Your task to perform on an android device: turn pop-ups on in chrome Image 0: 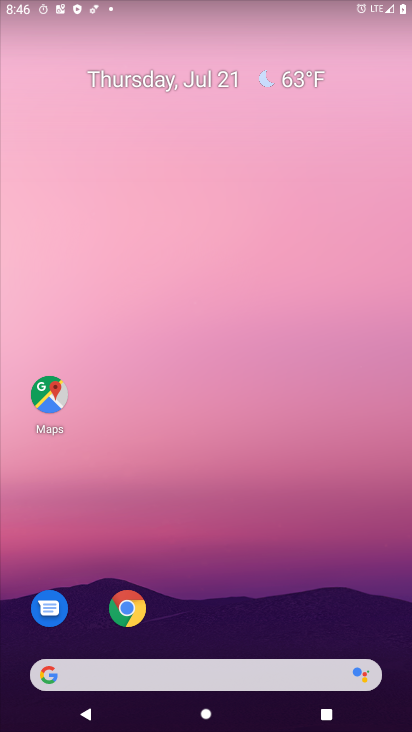
Step 0: press home button
Your task to perform on an android device: turn pop-ups on in chrome Image 1: 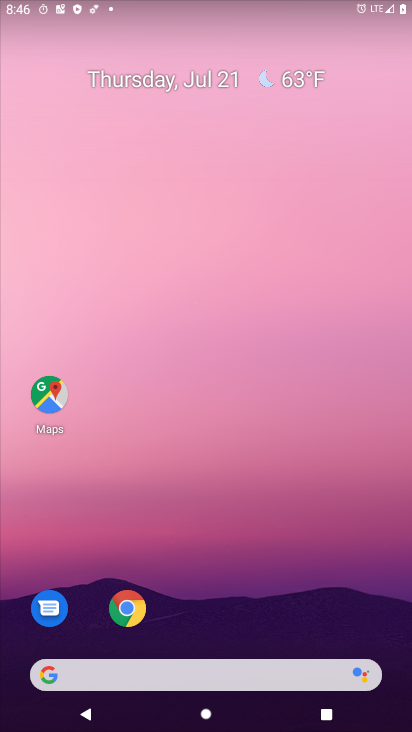
Step 1: click (190, 629)
Your task to perform on an android device: turn pop-ups on in chrome Image 2: 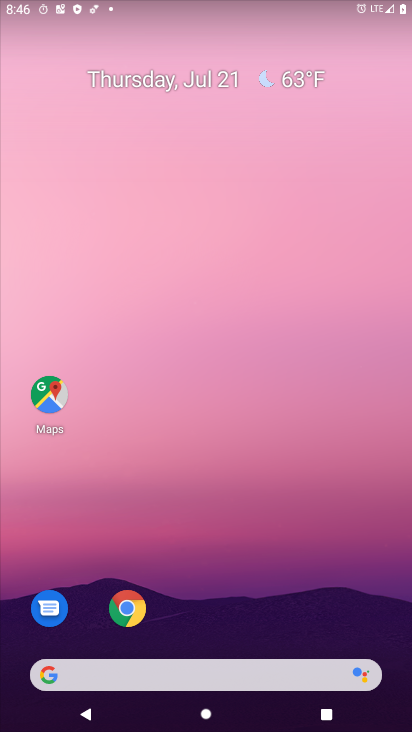
Step 2: drag from (201, 500) to (309, 1)
Your task to perform on an android device: turn pop-ups on in chrome Image 3: 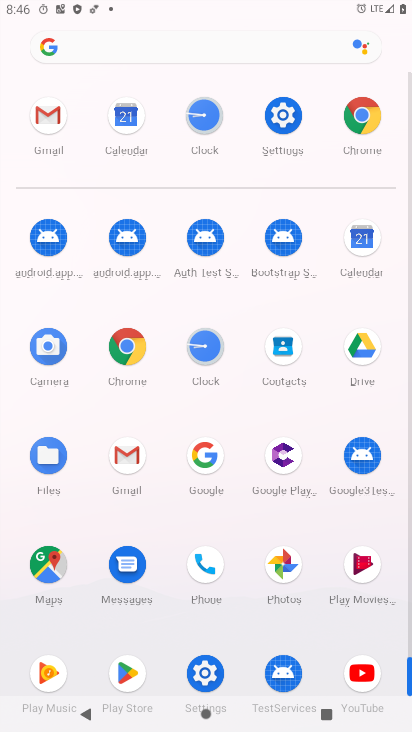
Step 3: click (129, 341)
Your task to perform on an android device: turn pop-ups on in chrome Image 4: 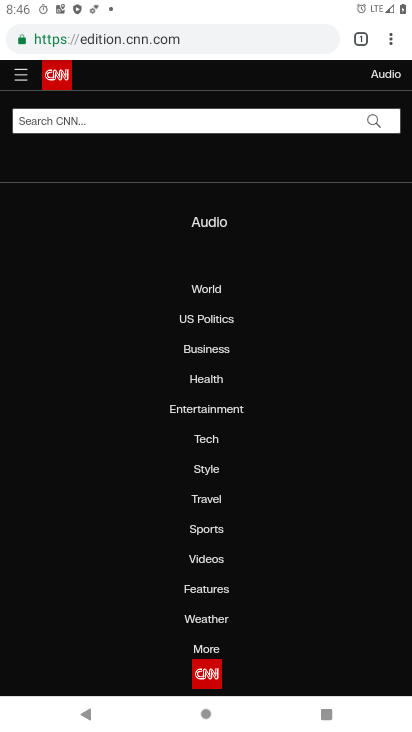
Step 4: drag from (396, 34) to (248, 468)
Your task to perform on an android device: turn pop-ups on in chrome Image 5: 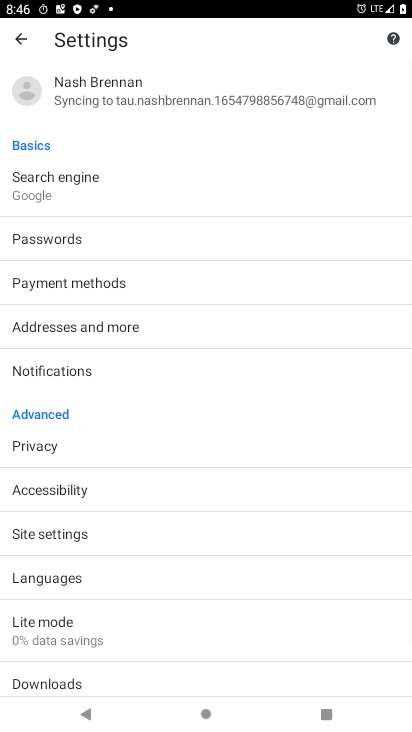
Step 5: click (114, 527)
Your task to perform on an android device: turn pop-ups on in chrome Image 6: 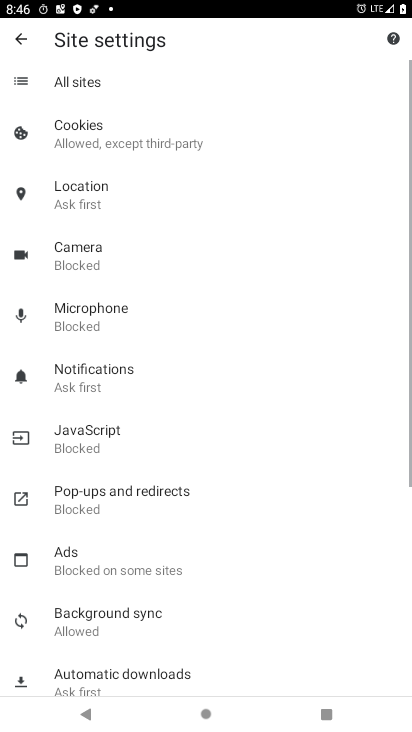
Step 6: click (82, 486)
Your task to perform on an android device: turn pop-ups on in chrome Image 7: 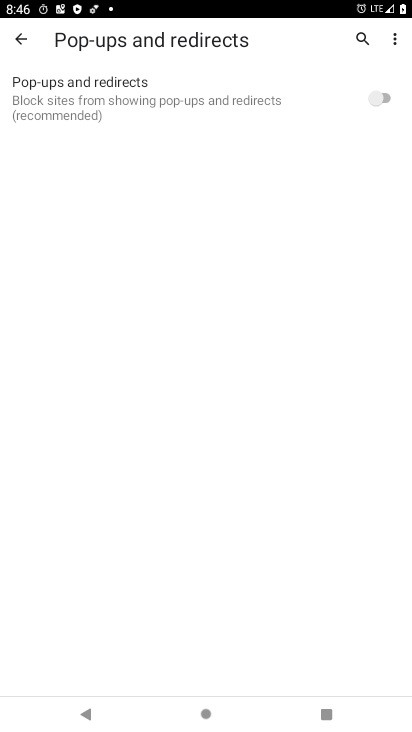
Step 7: click (364, 94)
Your task to perform on an android device: turn pop-ups on in chrome Image 8: 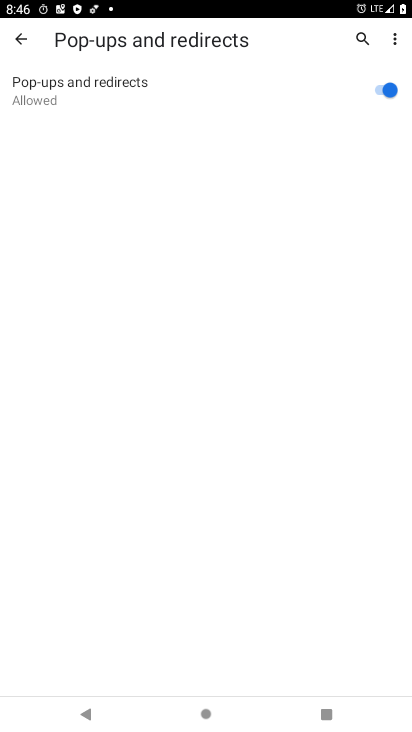
Step 8: task complete